Your task to perform on an android device: Go to eBay Image 0: 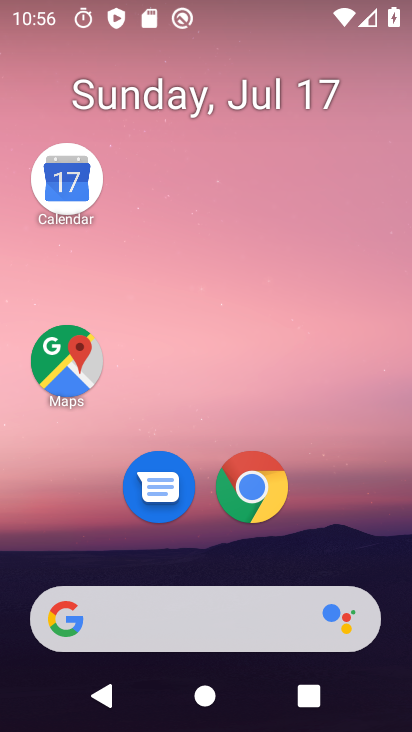
Step 0: click (246, 495)
Your task to perform on an android device: Go to eBay Image 1: 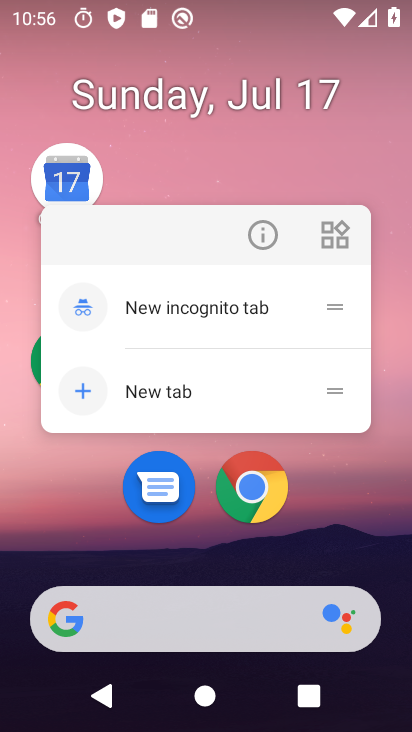
Step 1: click (246, 495)
Your task to perform on an android device: Go to eBay Image 2: 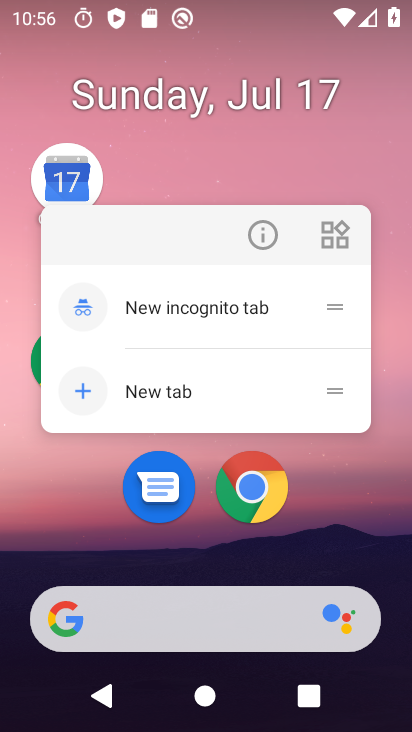
Step 2: click (246, 495)
Your task to perform on an android device: Go to eBay Image 3: 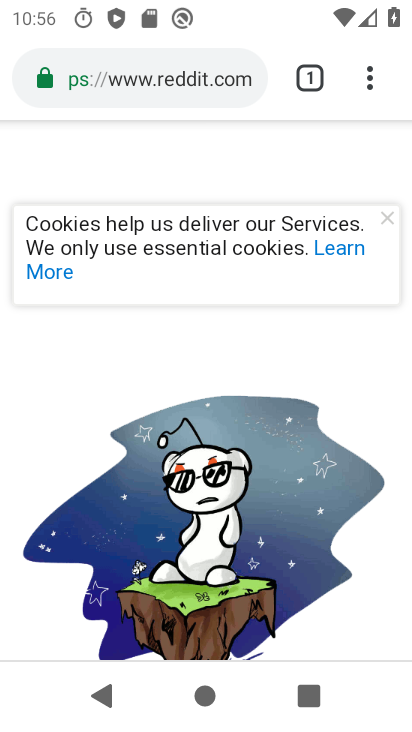
Step 3: click (305, 77)
Your task to perform on an android device: Go to eBay Image 4: 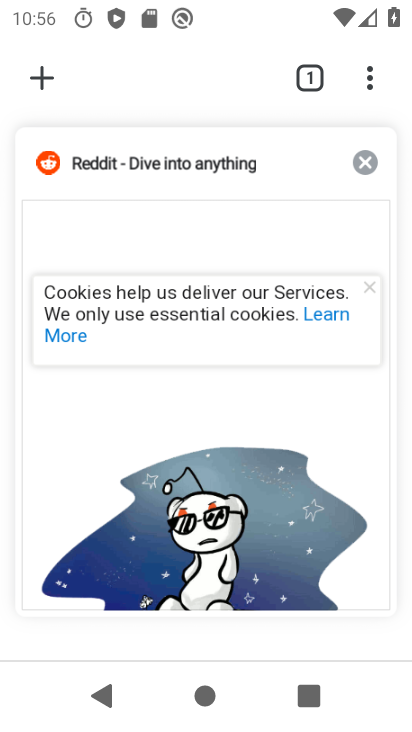
Step 4: click (52, 61)
Your task to perform on an android device: Go to eBay Image 5: 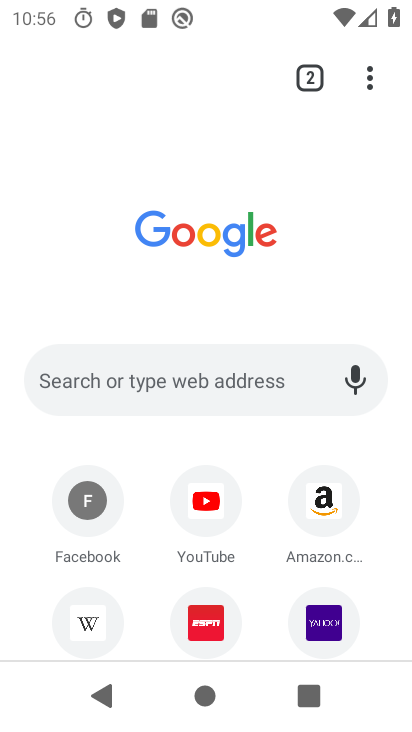
Step 5: drag from (213, 452) to (158, 205)
Your task to perform on an android device: Go to eBay Image 6: 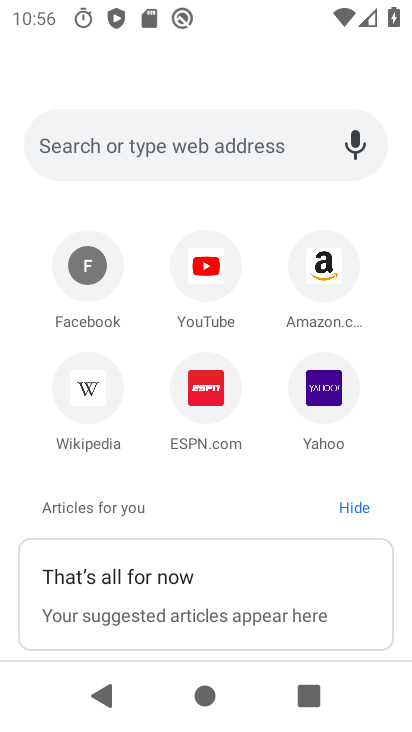
Step 6: click (183, 127)
Your task to perform on an android device: Go to eBay Image 7: 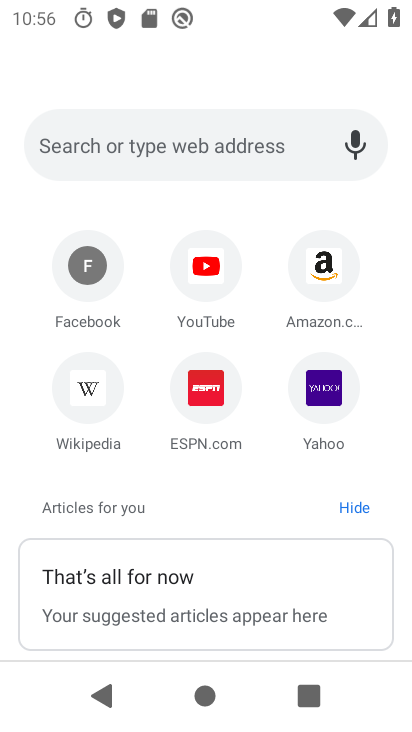
Step 7: click (189, 145)
Your task to perform on an android device: Go to eBay Image 8: 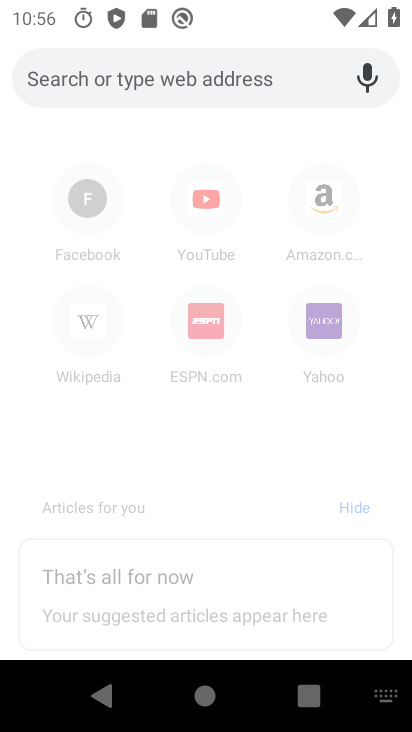
Step 8: type "ebay"
Your task to perform on an android device: Go to eBay Image 9: 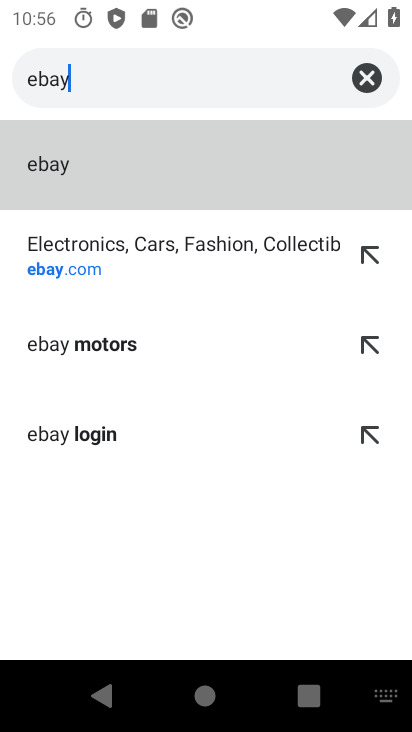
Step 9: click (60, 272)
Your task to perform on an android device: Go to eBay Image 10: 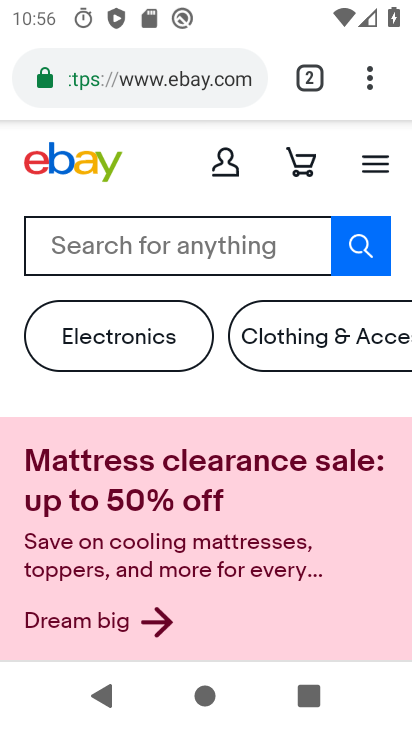
Step 10: task complete